Your task to perform on an android device: check android version Image 0: 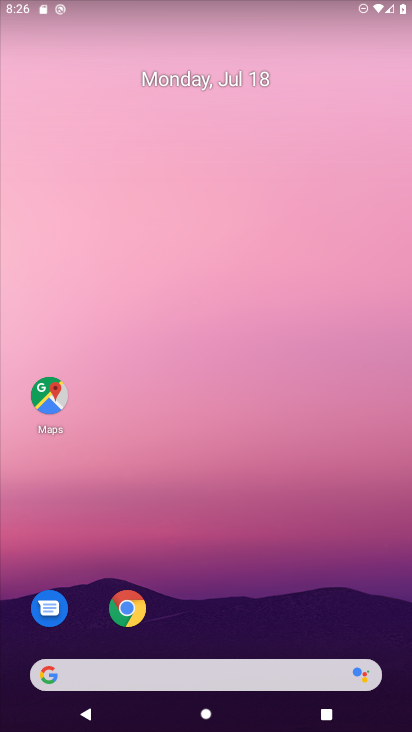
Step 0: drag from (268, 586) to (296, 103)
Your task to perform on an android device: check android version Image 1: 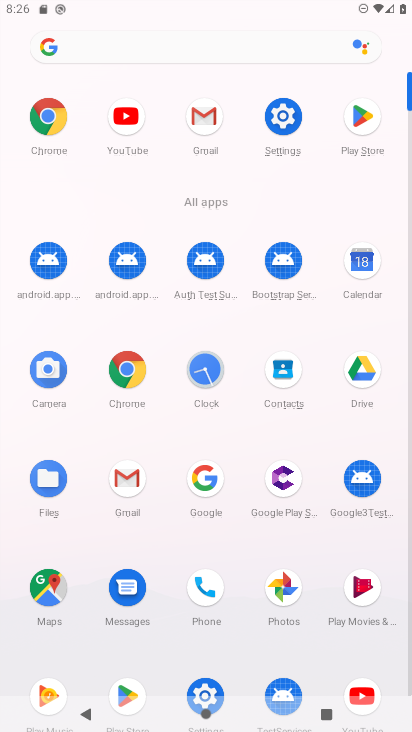
Step 1: click (291, 108)
Your task to perform on an android device: check android version Image 2: 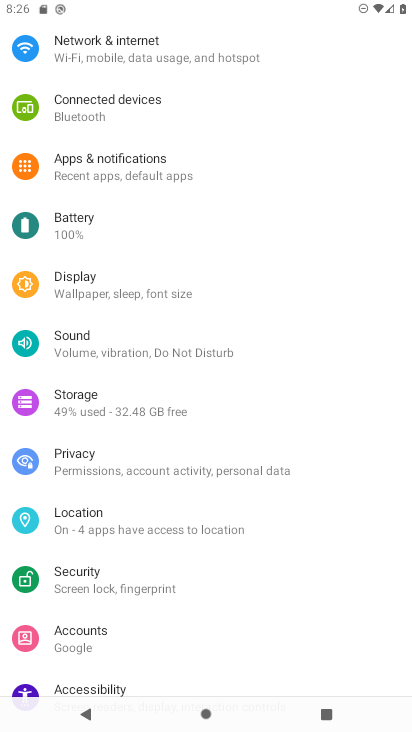
Step 2: drag from (176, 587) to (171, 261)
Your task to perform on an android device: check android version Image 3: 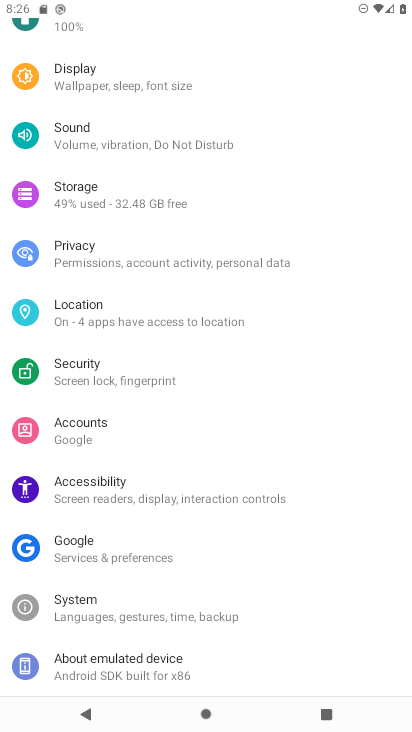
Step 3: click (148, 679)
Your task to perform on an android device: check android version Image 4: 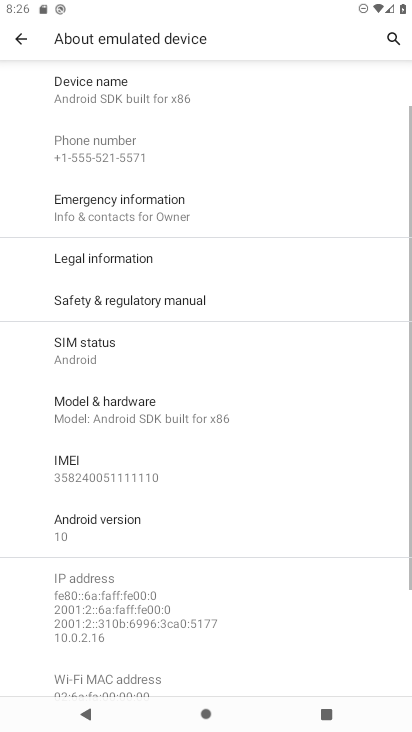
Step 4: click (231, 525)
Your task to perform on an android device: check android version Image 5: 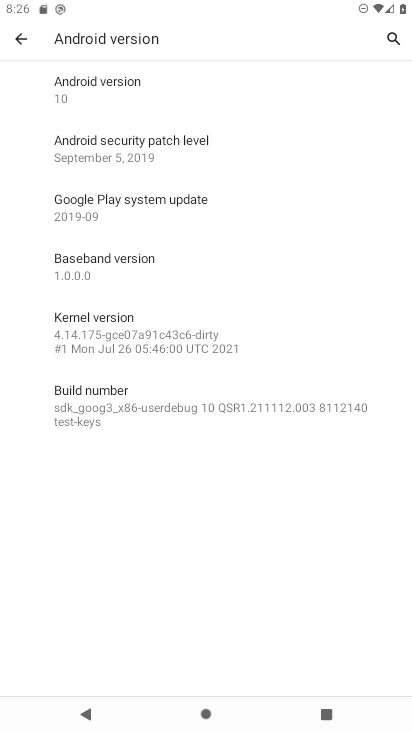
Step 5: task complete